Your task to perform on an android device: Open the phone app and click the voicemail tab. Image 0: 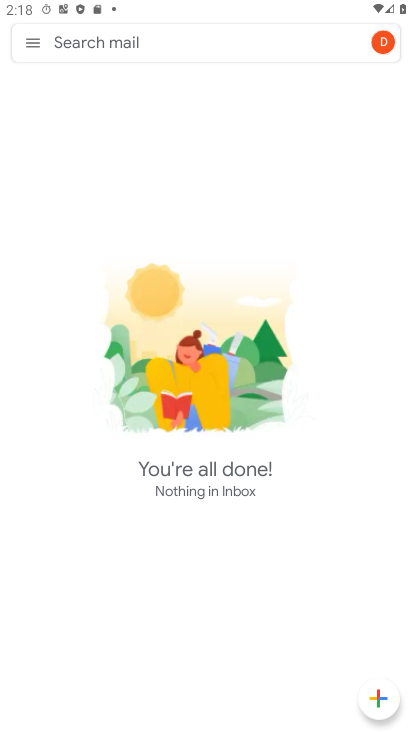
Step 0: click (30, 47)
Your task to perform on an android device: Open the phone app and click the voicemail tab. Image 1: 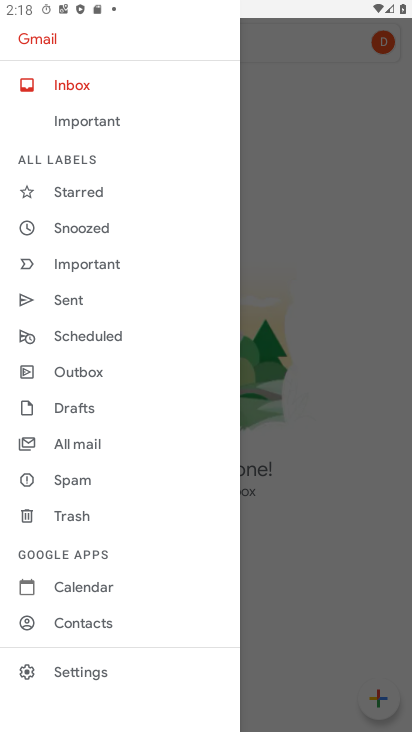
Step 1: press home button
Your task to perform on an android device: Open the phone app and click the voicemail tab. Image 2: 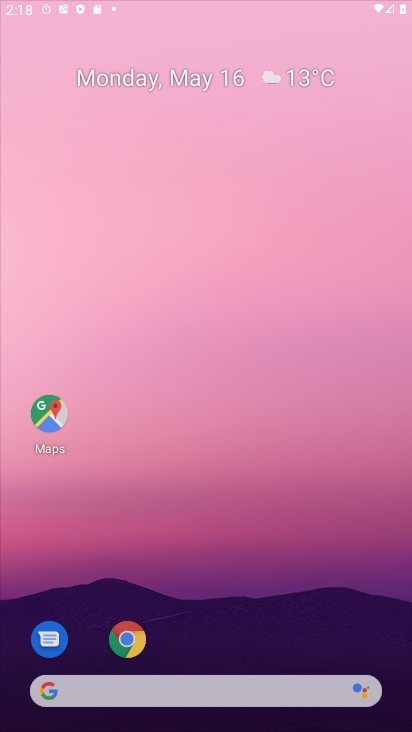
Step 2: press home button
Your task to perform on an android device: Open the phone app and click the voicemail tab. Image 3: 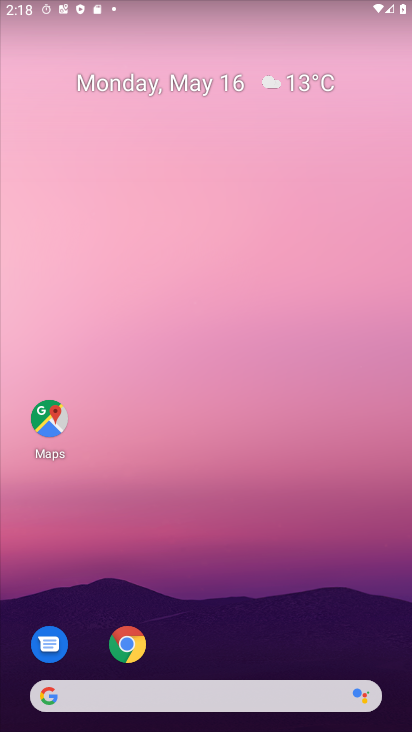
Step 3: drag from (158, 492) to (236, 100)
Your task to perform on an android device: Open the phone app and click the voicemail tab. Image 4: 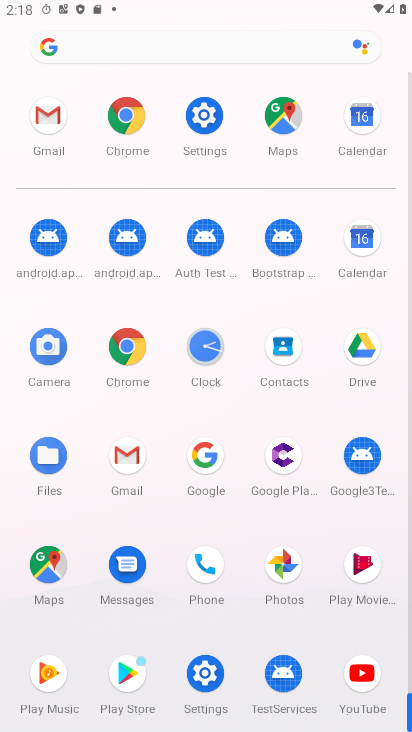
Step 4: click (202, 564)
Your task to perform on an android device: Open the phone app and click the voicemail tab. Image 5: 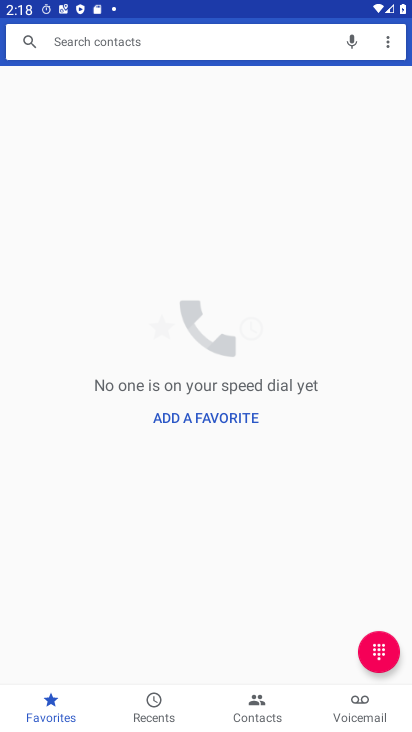
Step 5: click (343, 705)
Your task to perform on an android device: Open the phone app and click the voicemail tab. Image 6: 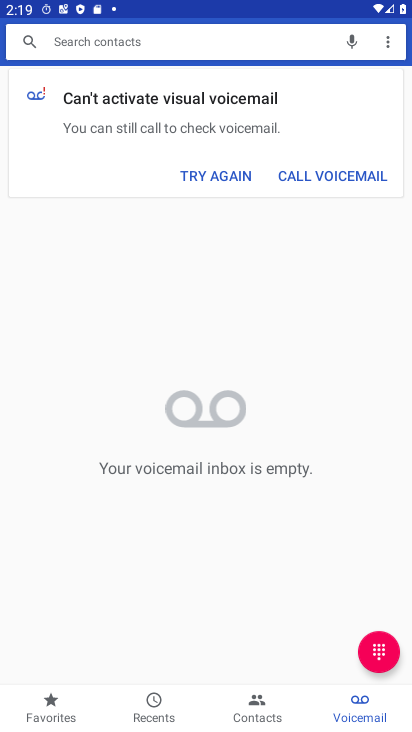
Step 6: task complete